Your task to perform on an android device: turn off javascript in the chrome app Image 0: 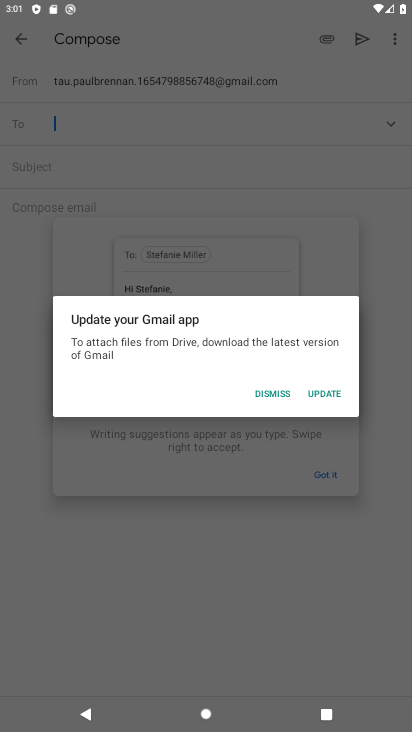
Step 0: press home button
Your task to perform on an android device: turn off javascript in the chrome app Image 1: 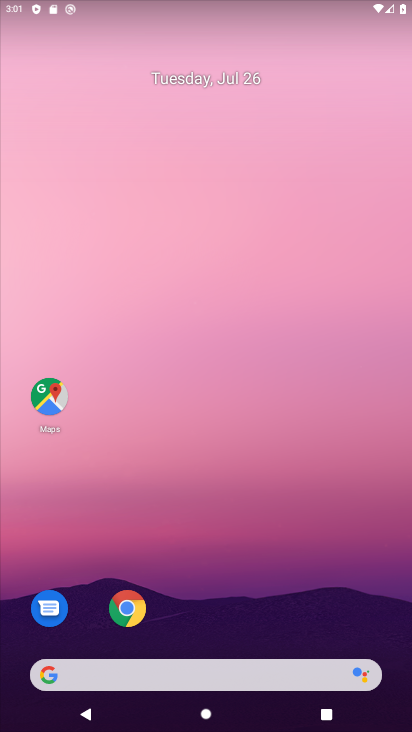
Step 1: click (129, 608)
Your task to perform on an android device: turn off javascript in the chrome app Image 2: 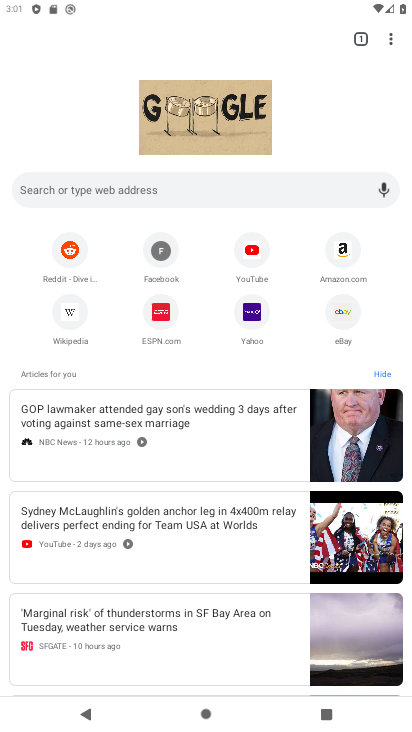
Step 2: click (390, 36)
Your task to perform on an android device: turn off javascript in the chrome app Image 3: 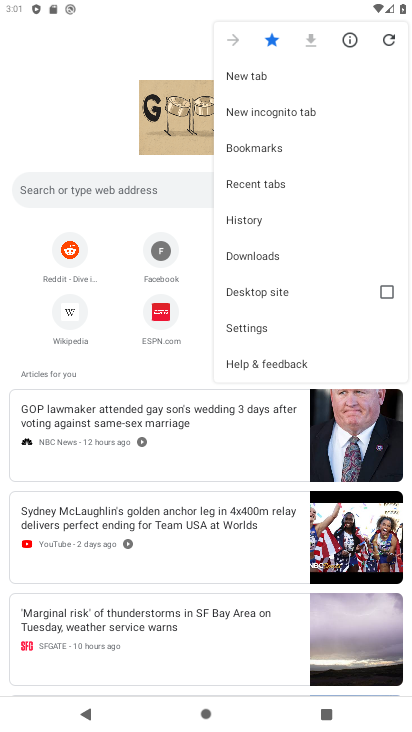
Step 3: click (253, 330)
Your task to perform on an android device: turn off javascript in the chrome app Image 4: 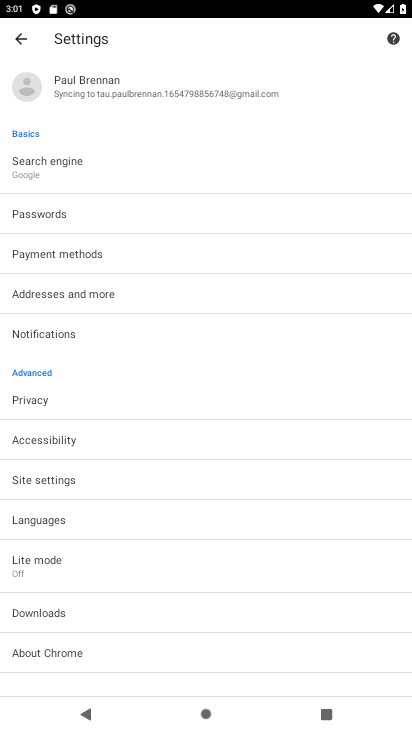
Step 4: click (72, 475)
Your task to perform on an android device: turn off javascript in the chrome app Image 5: 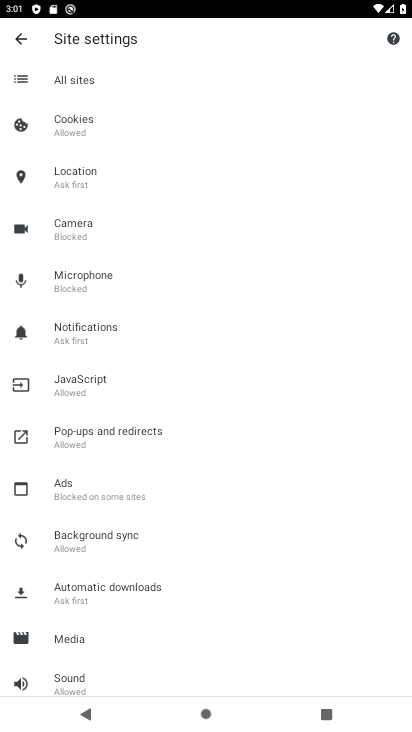
Step 5: click (95, 383)
Your task to perform on an android device: turn off javascript in the chrome app Image 6: 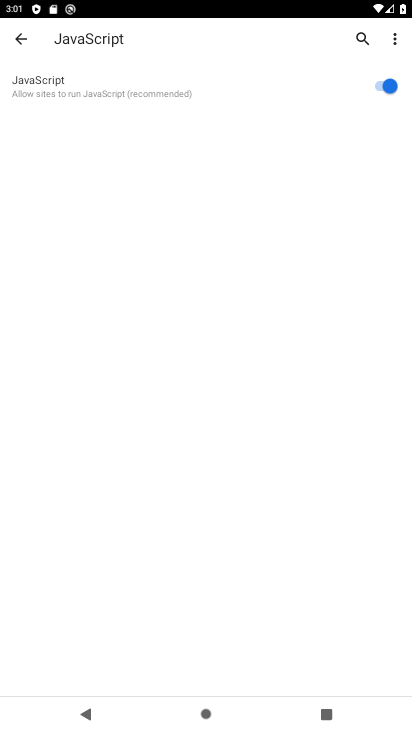
Step 6: click (355, 87)
Your task to perform on an android device: turn off javascript in the chrome app Image 7: 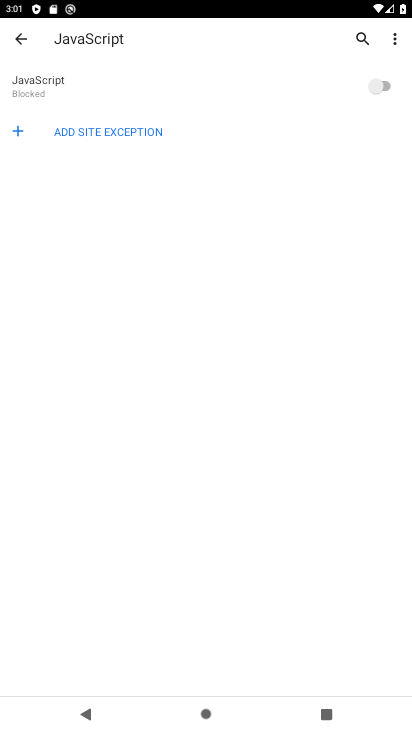
Step 7: task complete